Your task to perform on an android device: Open display settings Image 0: 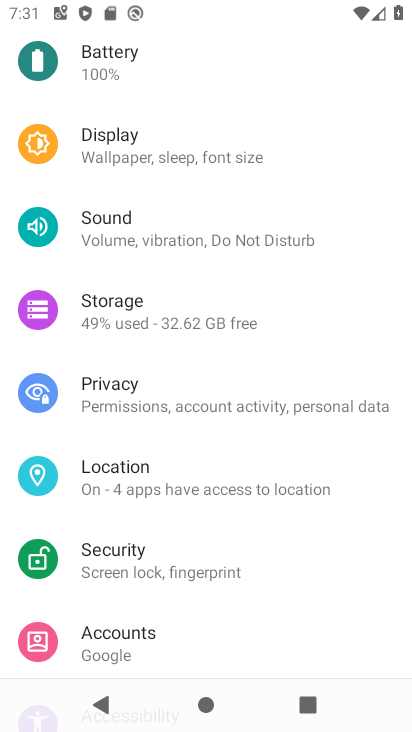
Step 0: click (113, 136)
Your task to perform on an android device: Open display settings Image 1: 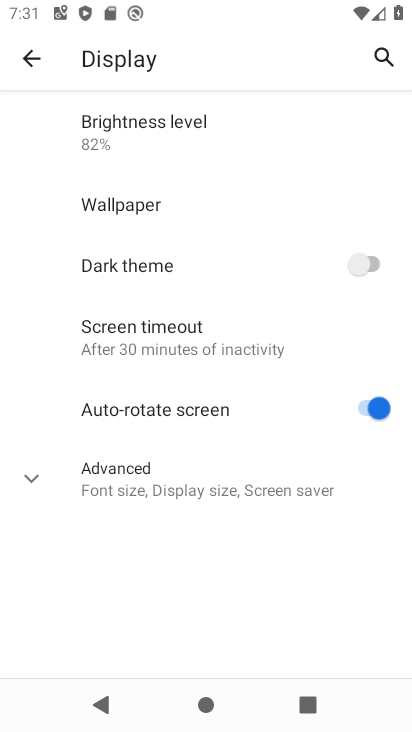
Step 1: task complete